Your task to perform on an android device: turn on airplane mode Image 0: 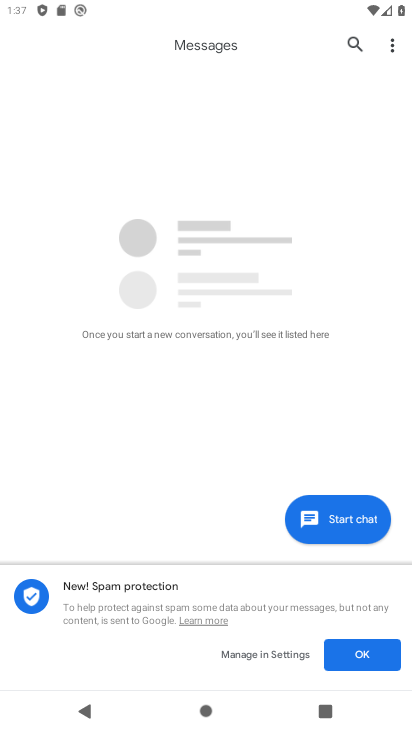
Step 0: press home button
Your task to perform on an android device: turn on airplane mode Image 1: 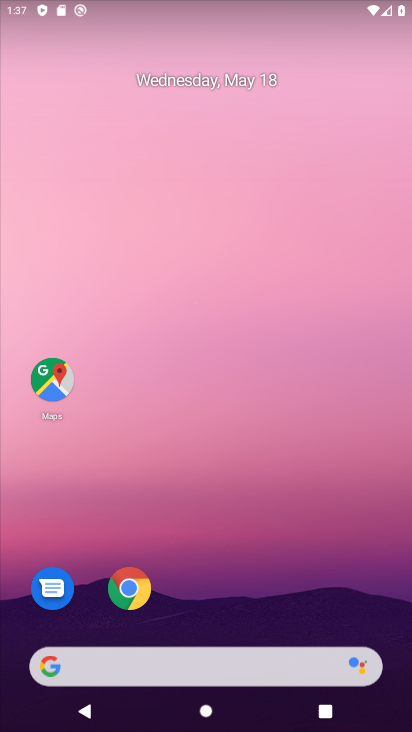
Step 1: drag from (302, 84) to (267, 399)
Your task to perform on an android device: turn on airplane mode Image 2: 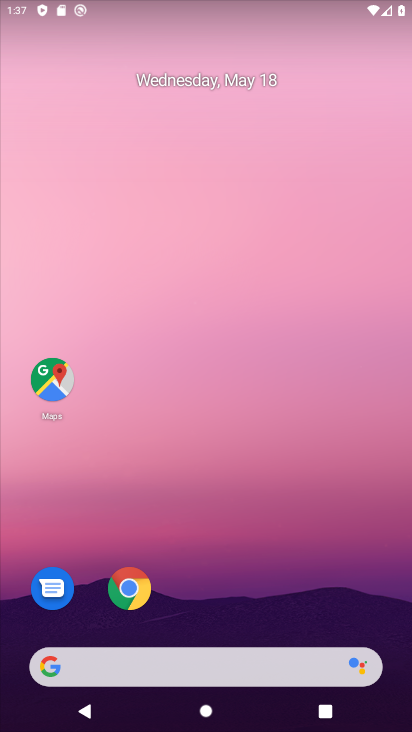
Step 2: drag from (262, 18) to (260, 557)
Your task to perform on an android device: turn on airplane mode Image 3: 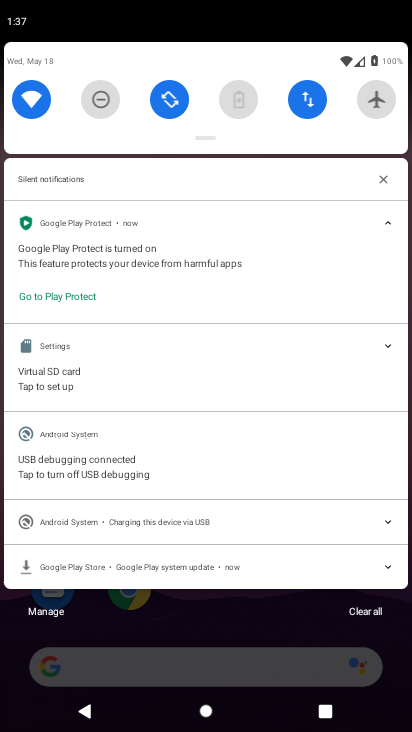
Step 3: click (381, 102)
Your task to perform on an android device: turn on airplane mode Image 4: 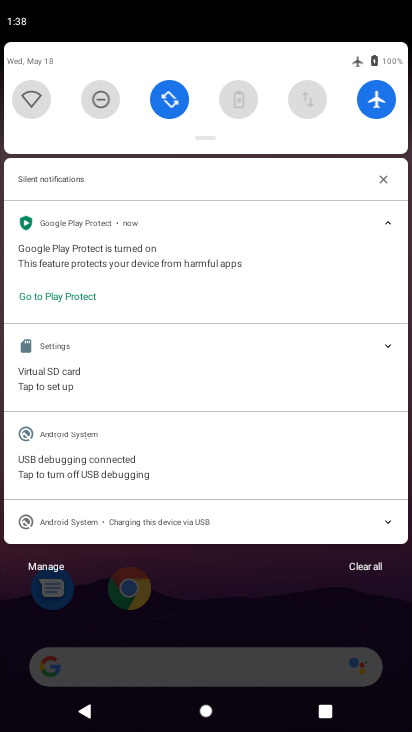
Step 4: task complete